Your task to perform on an android device: turn on javascript in the chrome app Image 0: 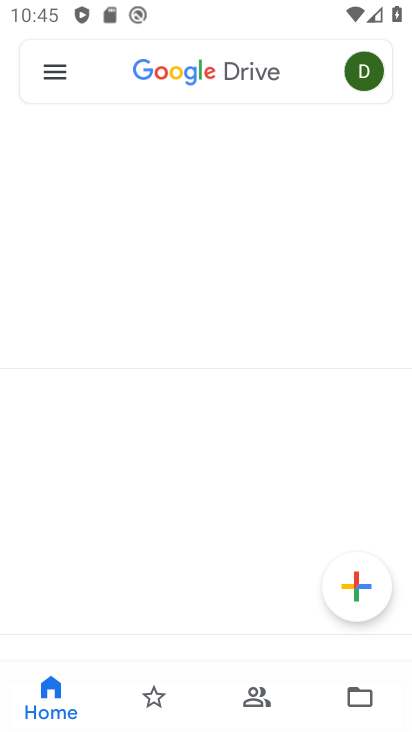
Step 0: drag from (339, 590) to (337, 533)
Your task to perform on an android device: turn on javascript in the chrome app Image 1: 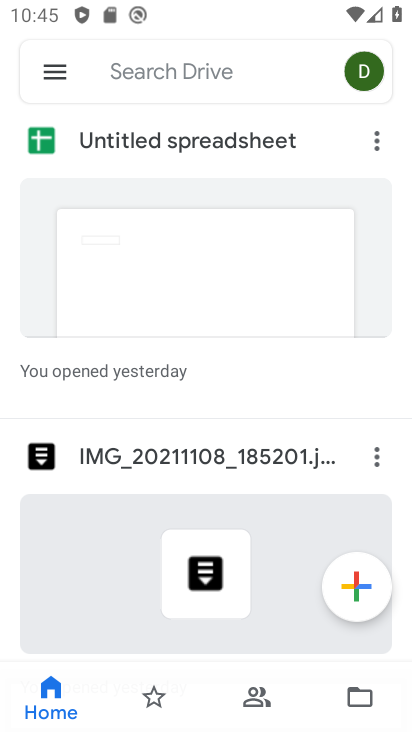
Step 1: press home button
Your task to perform on an android device: turn on javascript in the chrome app Image 2: 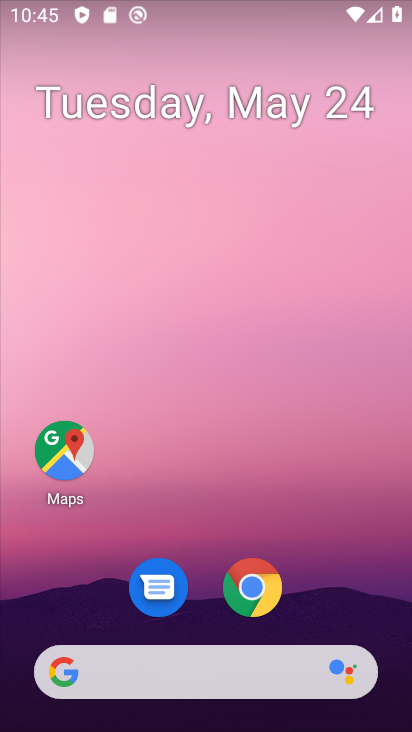
Step 2: drag from (391, 628) to (307, 209)
Your task to perform on an android device: turn on javascript in the chrome app Image 3: 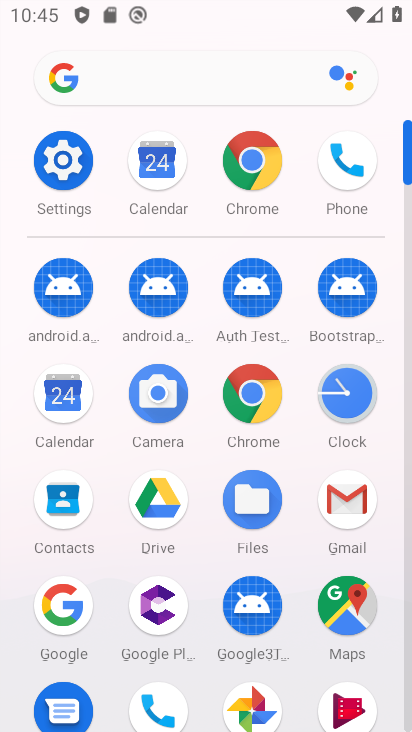
Step 3: click (227, 190)
Your task to perform on an android device: turn on javascript in the chrome app Image 4: 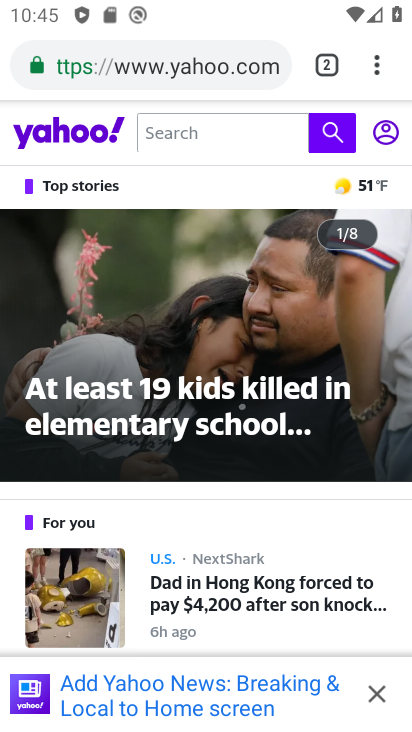
Step 4: drag from (371, 56) to (195, 635)
Your task to perform on an android device: turn on javascript in the chrome app Image 5: 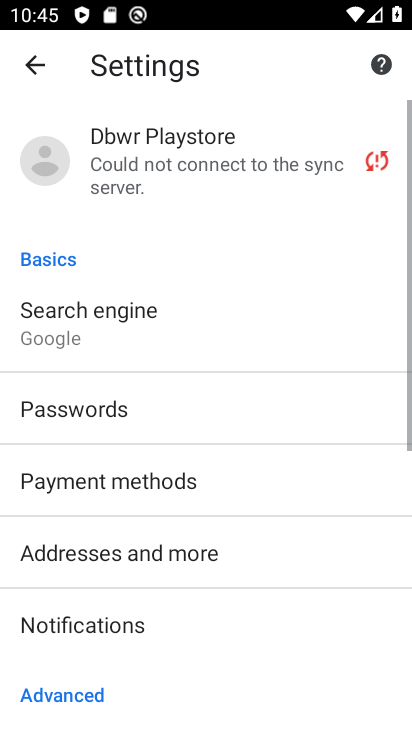
Step 5: drag from (195, 671) to (219, 185)
Your task to perform on an android device: turn on javascript in the chrome app Image 6: 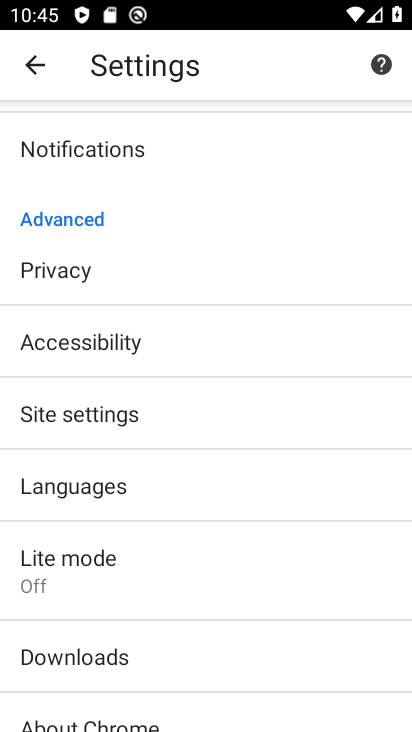
Step 6: click (196, 411)
Your task to perform on an android device: turn on javascript in the chrome app Image 7: 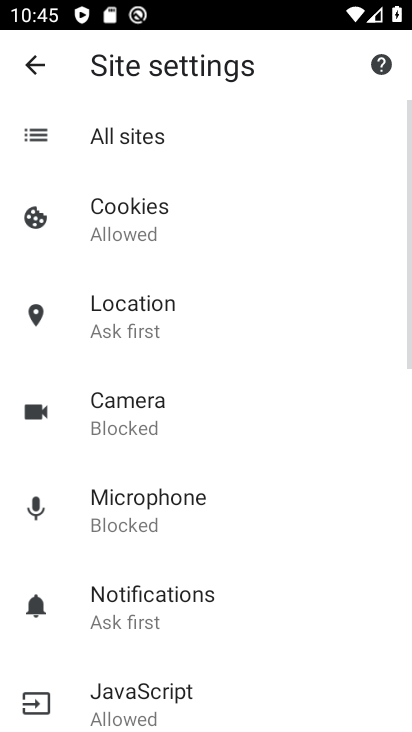
Step 7: drag from (160, 619) to (172, 527)
Your task to perform on an android device: turn on javascript in the chrome app Image 8: 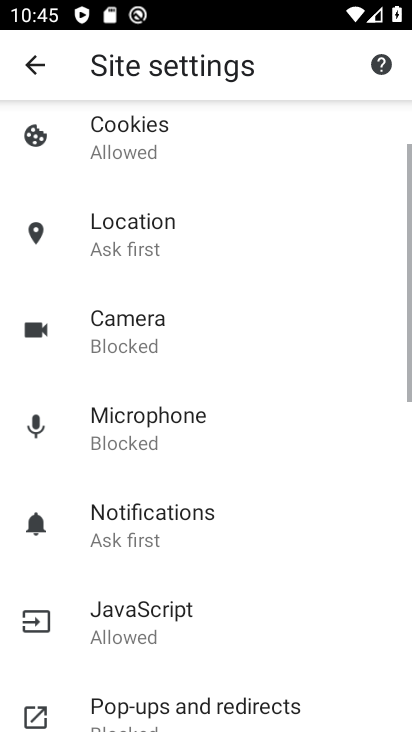
Step 8: click (156, 639)
Your task to perform on an android device: turn on javascript in the chrome app Image 9: 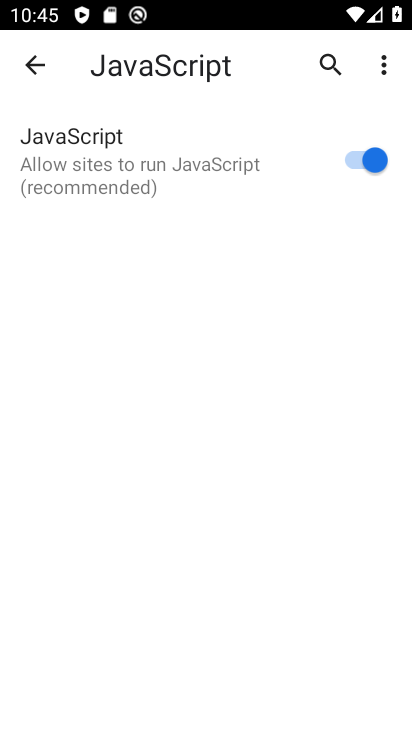
Step 9: task complete